Your task to perform on an android device: visit the assistant section in the google photos Image 0: 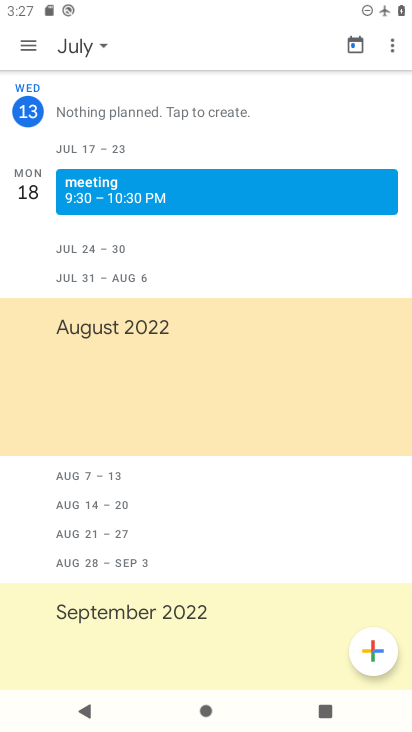
Step 0: press home button
Your task to perform on an android device: visit the assistant section in the google photos Image 1: 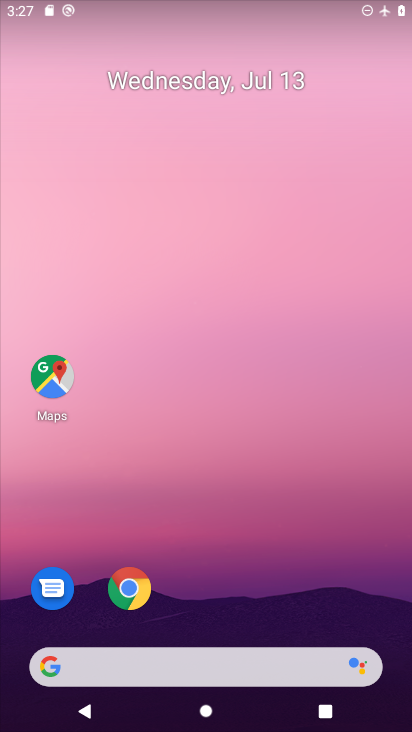
Step 1: drag from (219, 623) to (190, 140)
Your task to perform on an android device: visit the assistant section in the google photos Image 2: 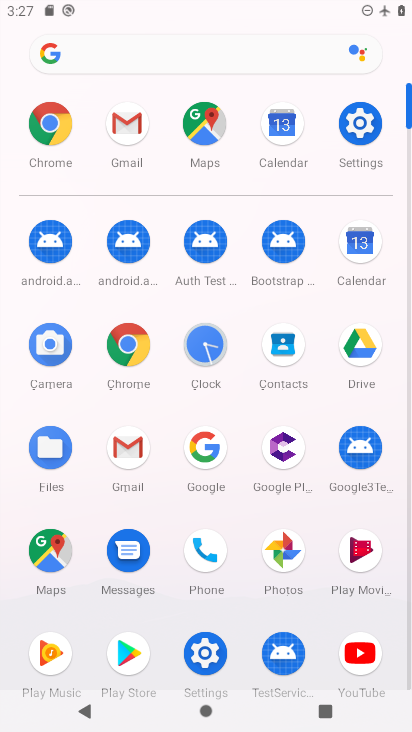
Step 2: click (274, 570)
Your task to perform on an android device: visit the assistant section in the google photos Image 3: 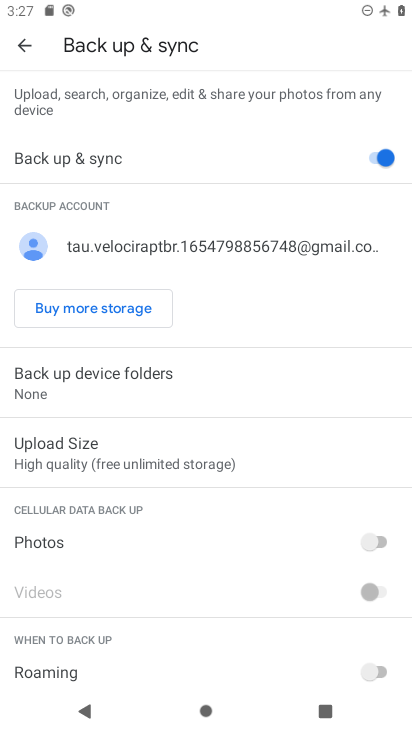
Step 3: click (14, 40)
Your task to perform on an android device: visit the assistant section in the google photos Image 4: 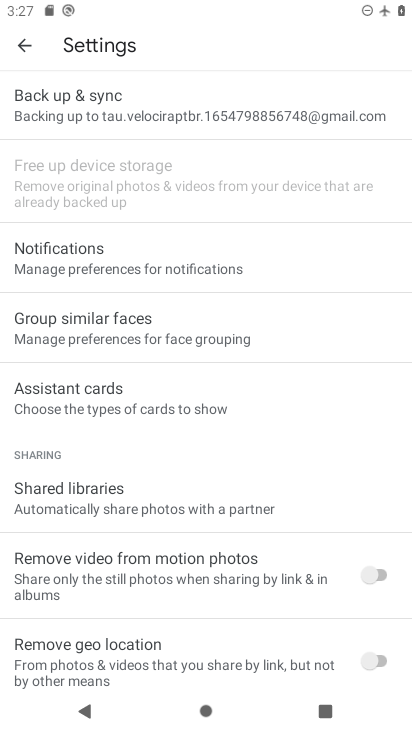
Step 4: click (16, 42)
Your task to perform on an android device: visit the assistant section in the google photos Image 5: 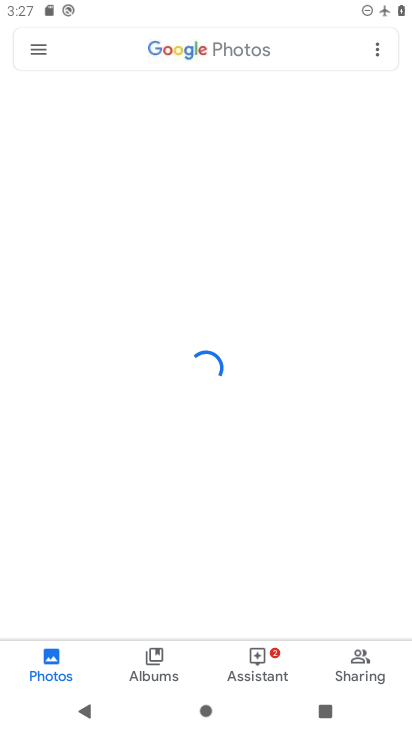
Step 5: click (259, 652)
Your task to perform on an android device: visit the assistant section in the google photos Image 6: 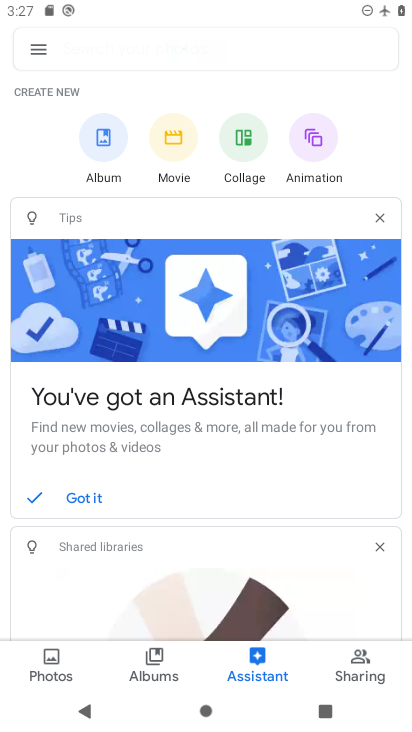
Step 6: task complete